Your task to perform on an android device: Open Amazon Image 0: 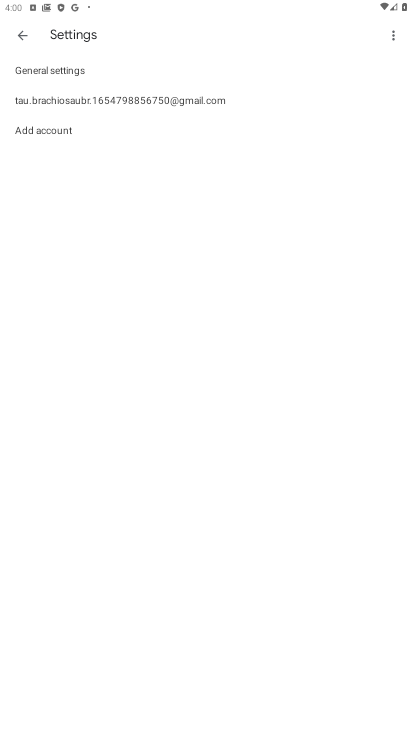
Step 0: press home button
Your task to perform on an android device: Open Amazon Image 1: 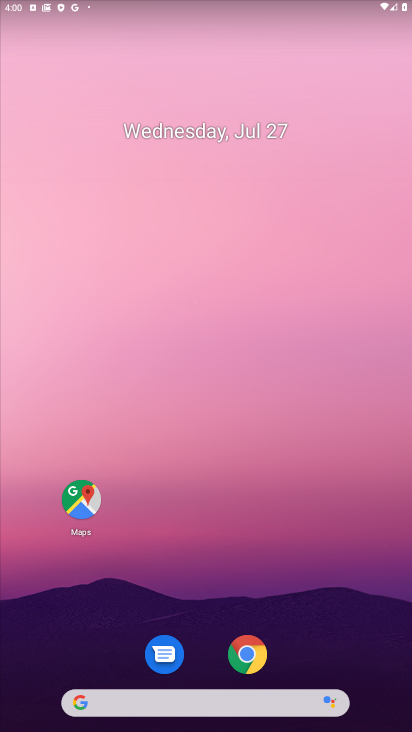
Step 1: drag from (147, 415) to (147, 252)
Your task to perform on an android device: Open Amazon Image 2: 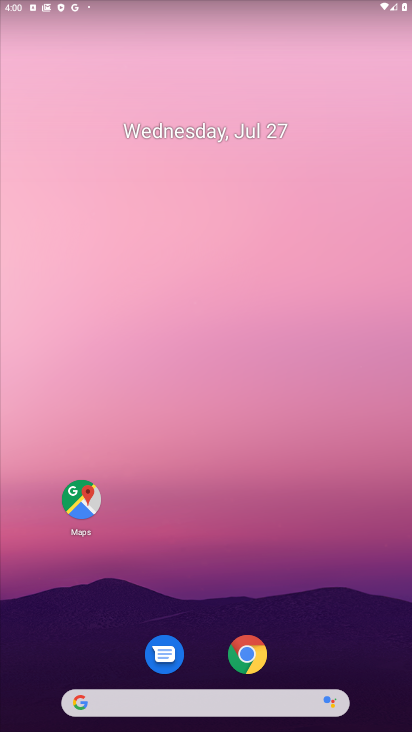
Step 2: drag from (150, 692) to (150, 183)
Your task to perform on an android device: Open Amazon Image 3: 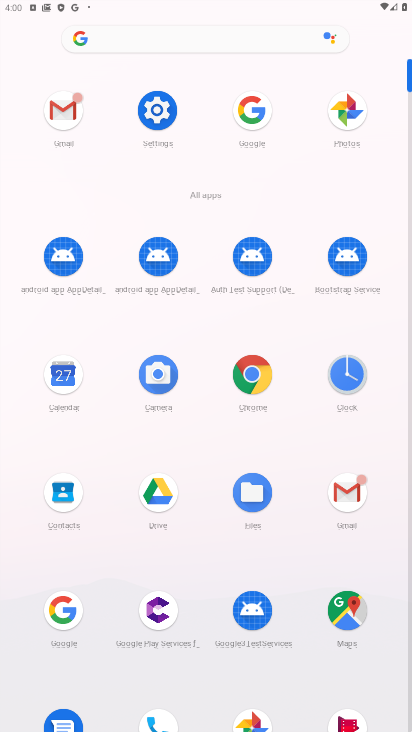
Step 3: click (70, 616)
Your task to perform on an android device: Open Amazon Image 4: 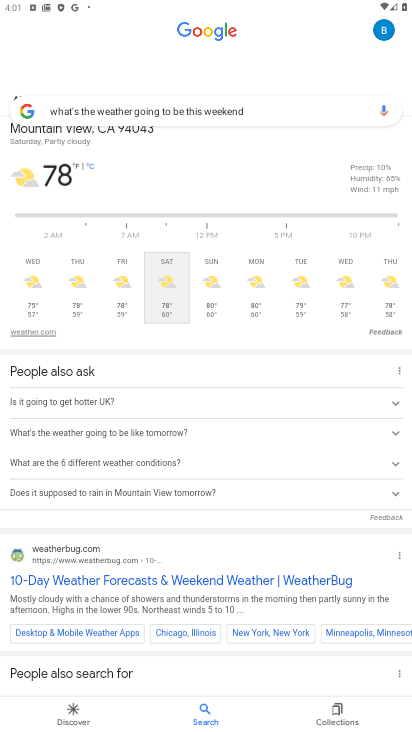
Step 4: click (254, 114)
Your task to perform on an android device: Open Amazon Image 5: 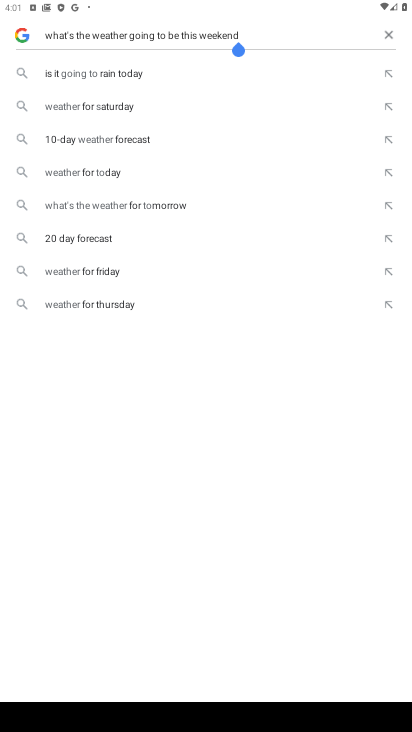
Step 5: click (385, 39)
Your task to perform on an android device: Open Amazon Image 6: 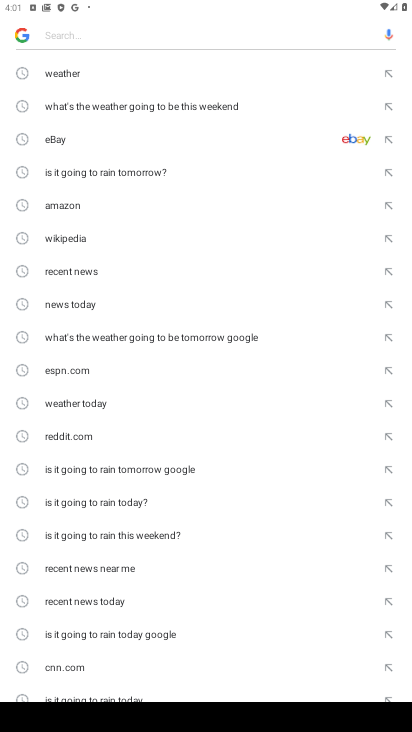
Step 6: drag from (85, 678) to (80, 236)
Your task to perform on an android device: Open Amazon Image 7: 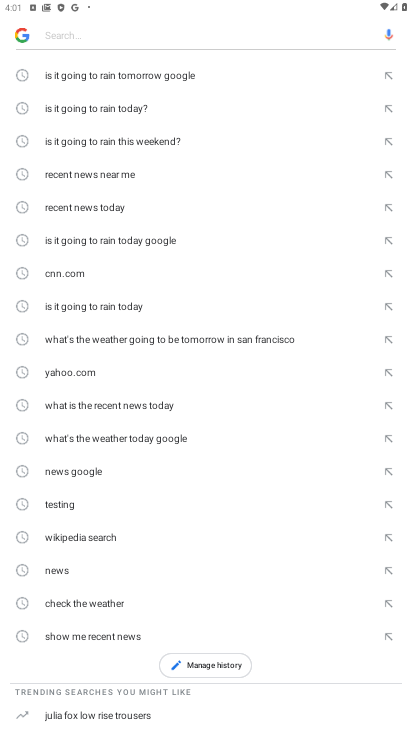
Step 7: drag from (87, 306) to (88, 603)
Your task to perform on an android device: Open Amazon Image 8: 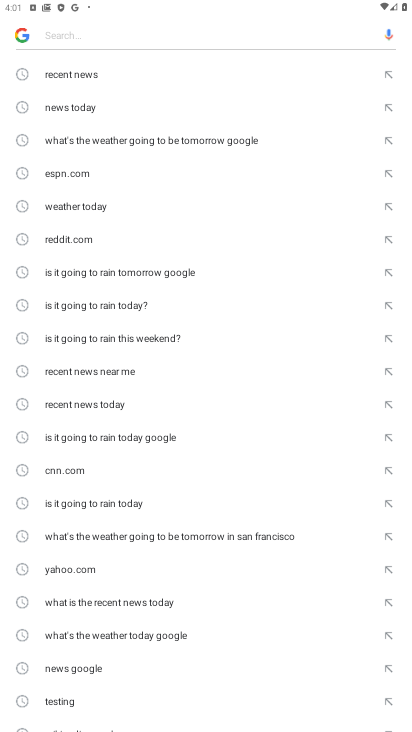
Step 8: drag from (81, 138) to (92, 428)
Your task to perform on an android device: Open Amazon Image 9: 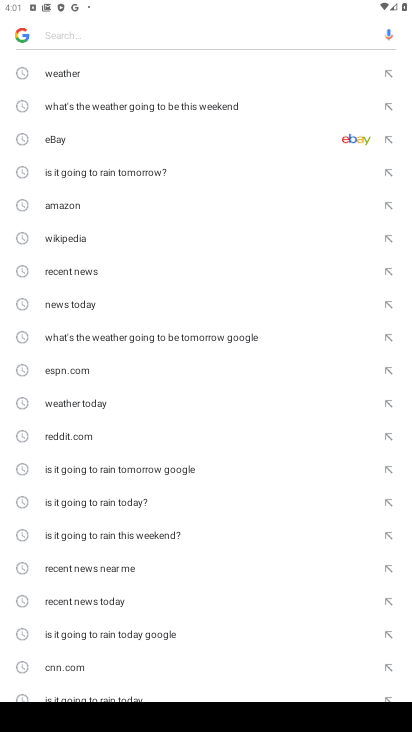
Step 9: click (61, 199)
Your task to perform on an android device: Open Amazon Image 10: 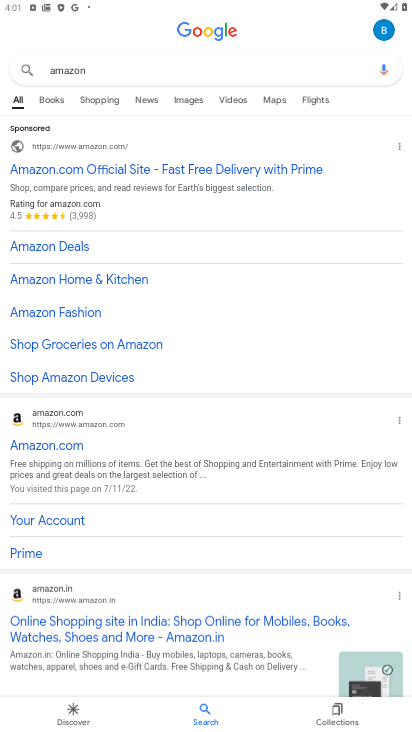
Step 10: click (64, 449)
Your task to perform on an android device: Open Amazon Image 11: 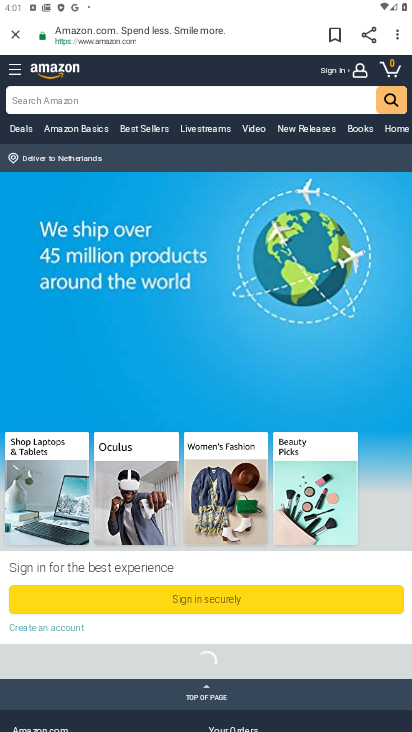
Step 11: task complete